Your task to perform on an android device: change the clock display to analog Image 0: 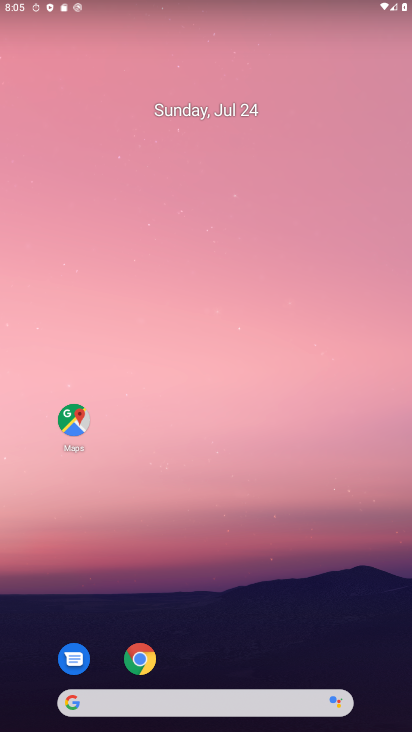
Step 0: drag from (215, 539) to (290, 6)
Your task to perform on an android device: change the clock display to analog Image 1: 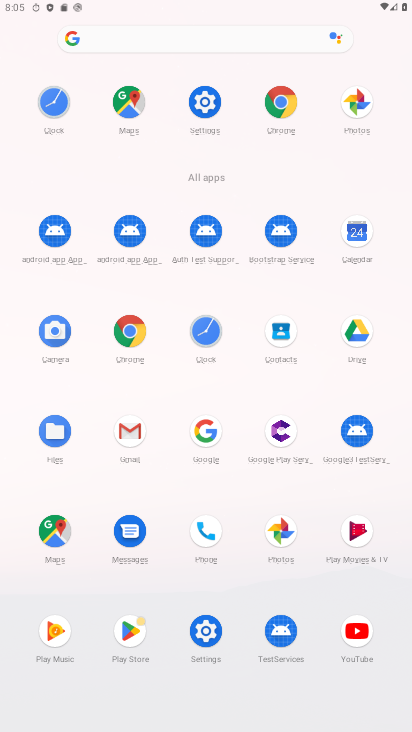
Step 1: click (206, 318)
Your task to perform on an android device: change the clock display to analog Image 2: 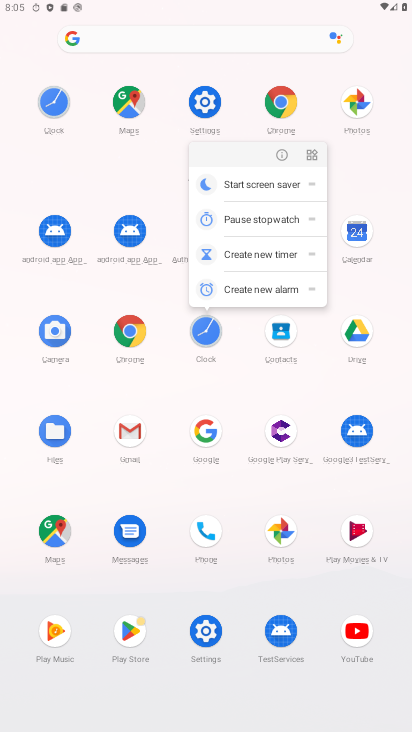
Step 2: click (203, 339)
Your task to perform on an android device: change the clock display to analog Image 3: 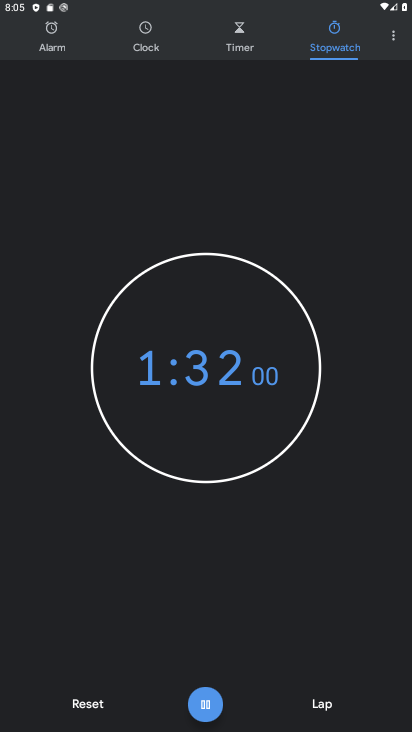
Step 3: click (393, 37)
Your task to perform on an android device: change the clock display to analog Image 4: 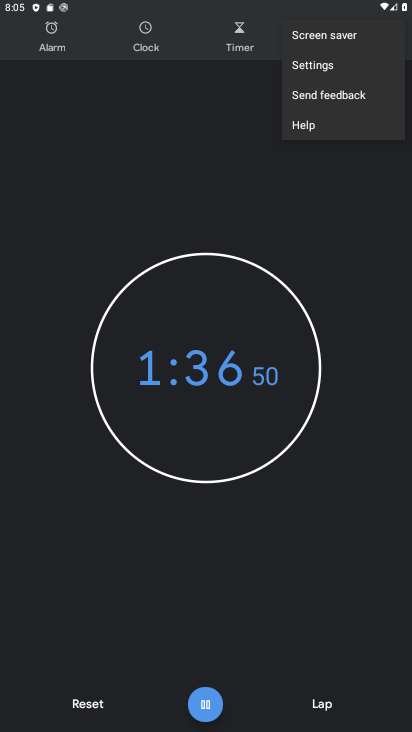
Step 4: click (302, 62)
Your task to perform on an android device: change the clock display to analog Image 5: 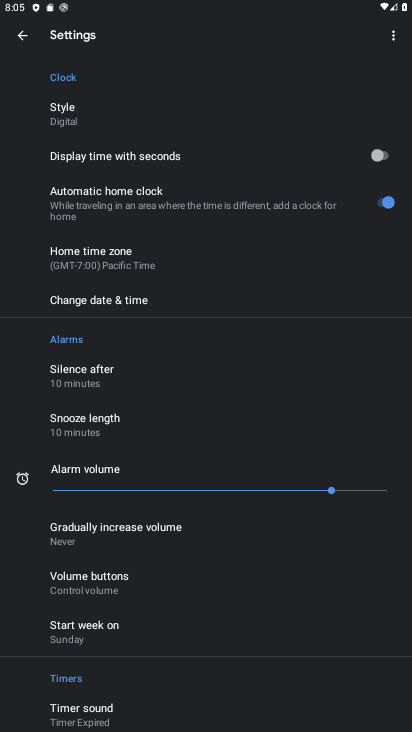
Step 5: click (76, 110)
Your task to perform on an android device: change the clock display to analog Image 6: 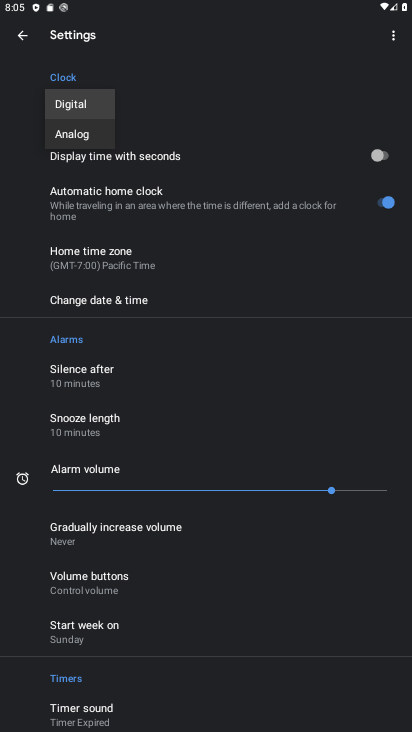
Step 6: click (93, 140)
Your task to perform on an android device: change the clock display to analog Image 7: 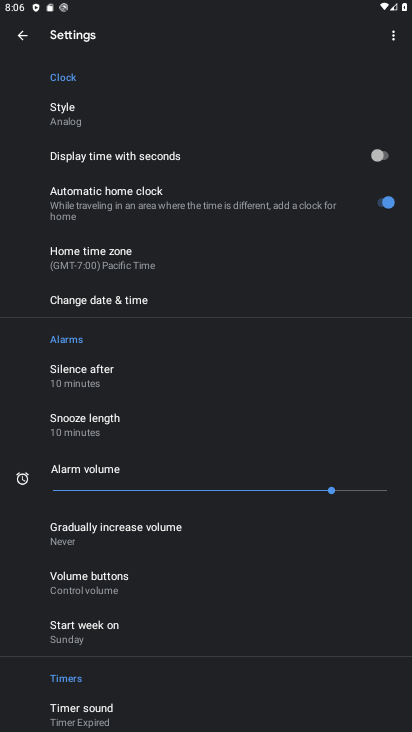
Step 7: task complete